Your task to perform on an android device: open a bookmark in the chrome app Image 0: 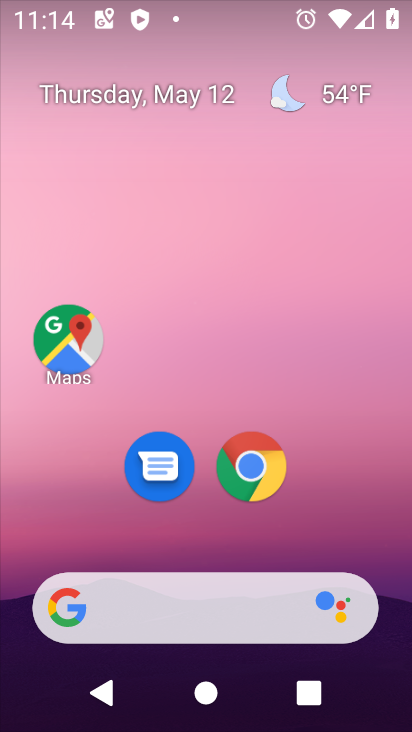
Step 0: drag from (359, 556) to (337, 183)
Your task to perform on an android device: open a bookmark in the chrome app Image 1: 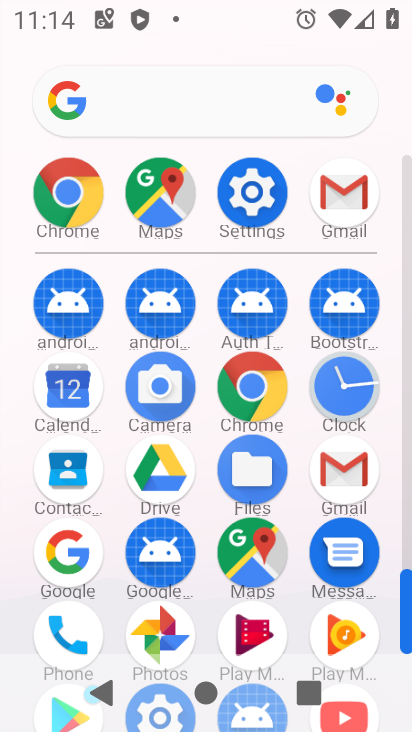
Step 1: click (241, 405)
Your task to perform on an android device: open a bookmark in the chrome app Image 2: 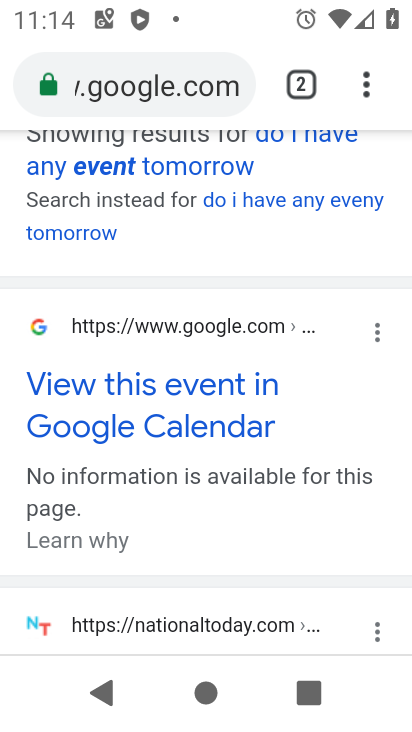
Step 2: click (374, 93)
Your task to perform on an android device: open a bookmark in the chrome app Image 3: 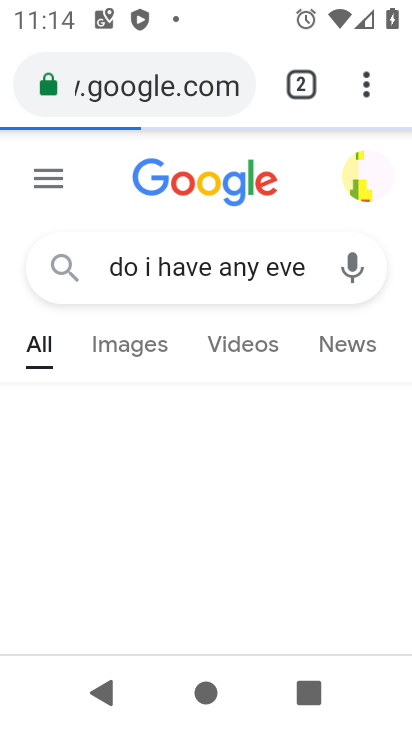
Step 3: task complete